Your task to perform on an android device: add a contact Image 0: 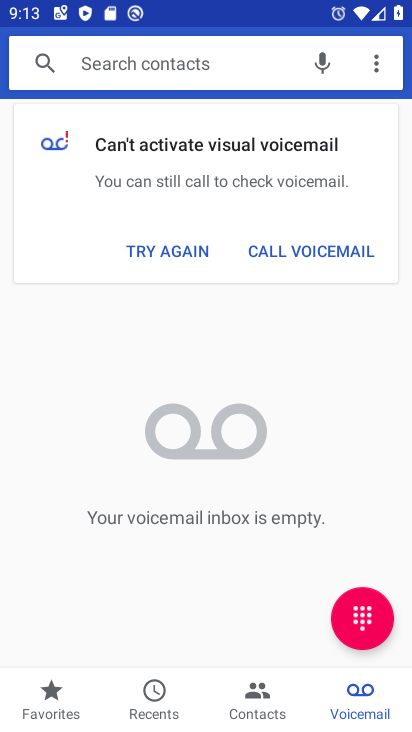
Step 0: press home button
Your task to perform on an android device: add a contact Image 1: 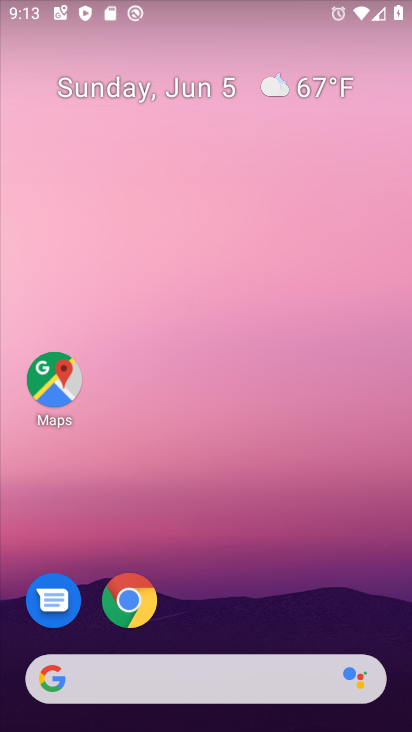
Step 1: drag from (389, 668) to (303, 71)
Your task to perform on an android device: add a contact Image 2: 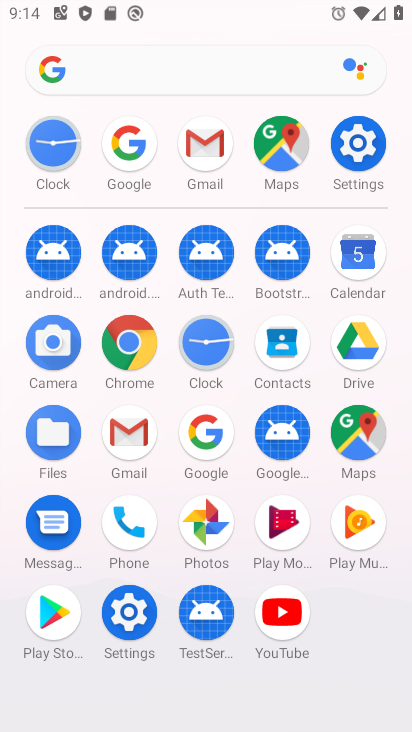
Step 2: click (275, 337)
Your task to perform on an android device: add a contact Image 3: 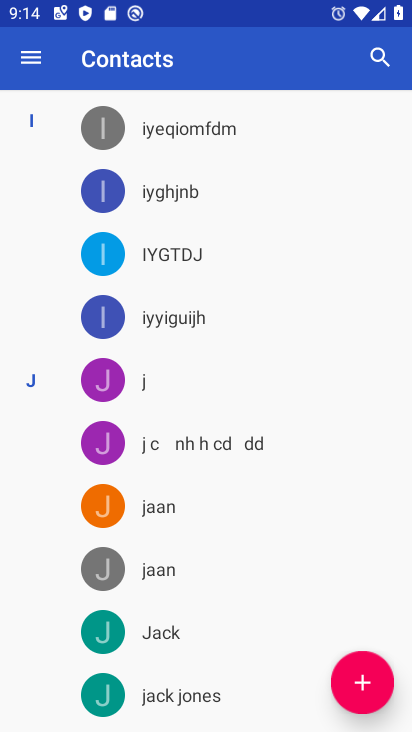
Step 3: click (366, 662)
Your task to perform on an android device: add a contact Image 4: 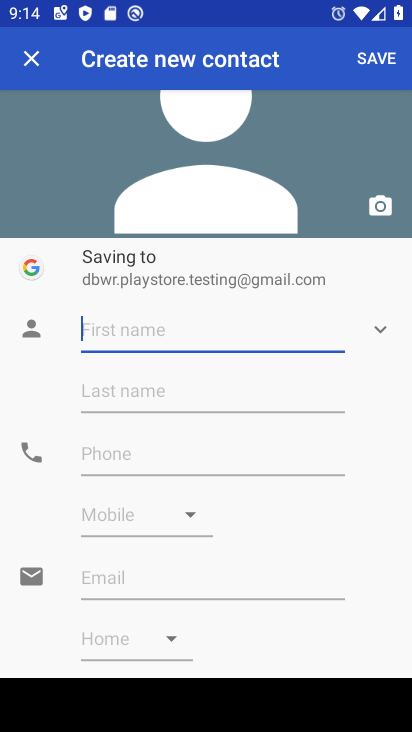
Step 4: type "hack"
Your task to perform on an android device: add a contact Image 5: 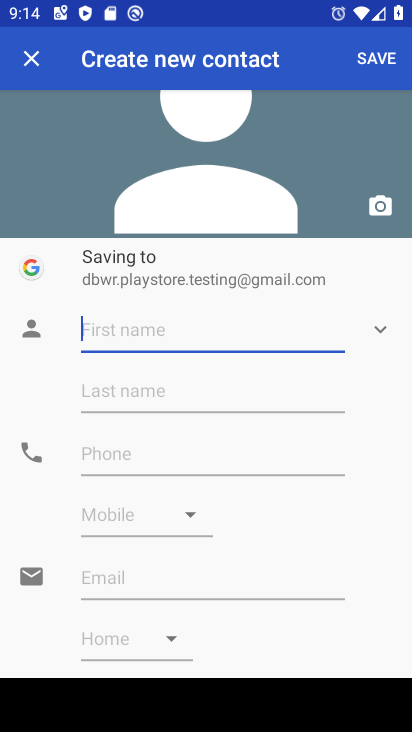
Step 5: click (354, 67)
Your task to perform on an android device: add a contact Image 6: 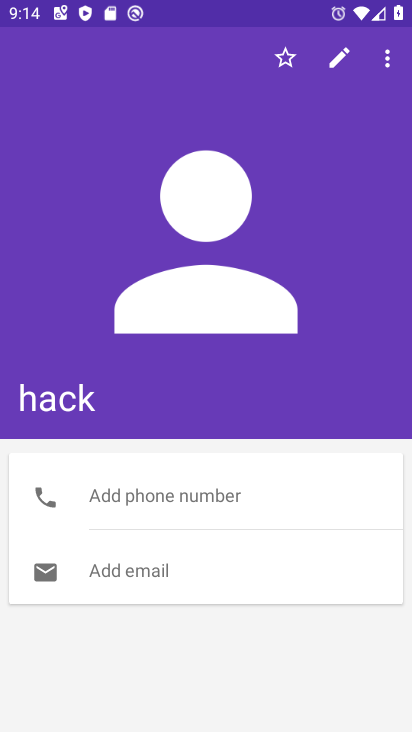
Step 6: task complete